Your task to perform on an android device: turn on improve location accuracy Image 0: 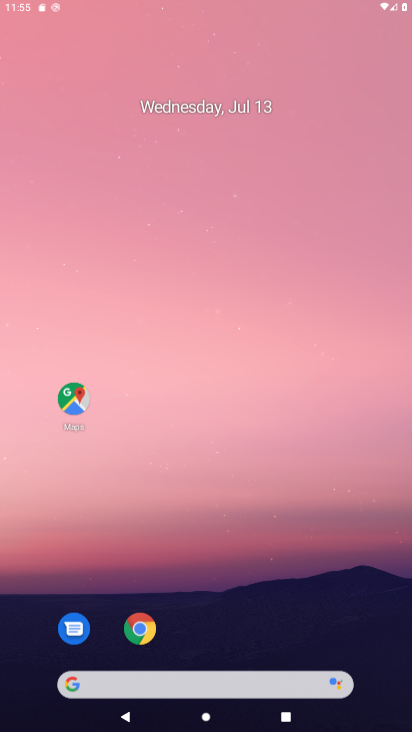
Step 0: press home button
Your task to perform on an android device: turn on improve location accuracy Image 1: 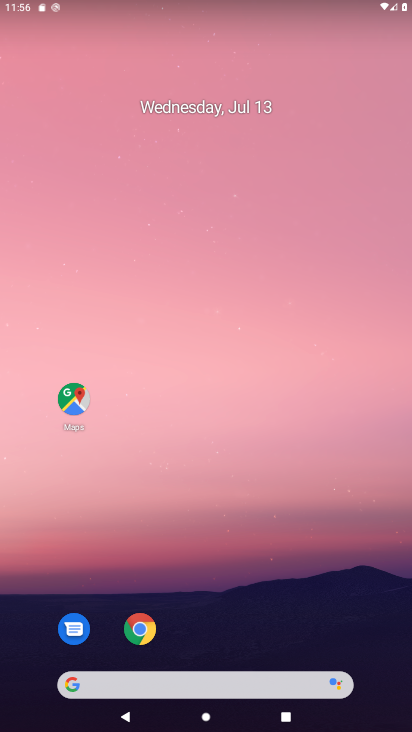
Step 1: drag from (276, 630) to (204, 99)
Your task to perform on an android device: turn on improve location accuracy Image 2: 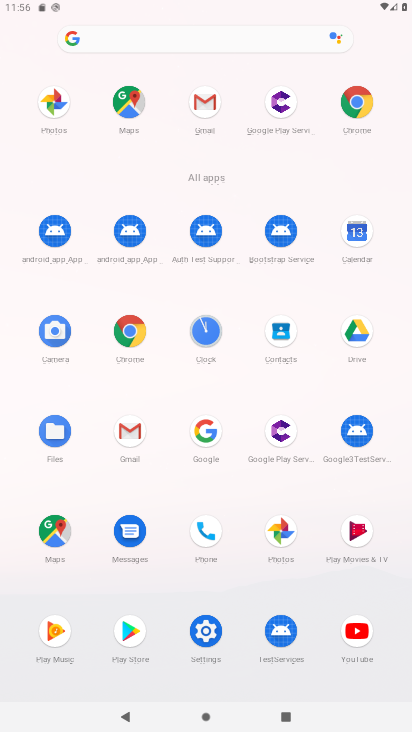
Step 2: click (209, 629)
Your task to perform on an android device: turn on improve location accuracy Image 3: 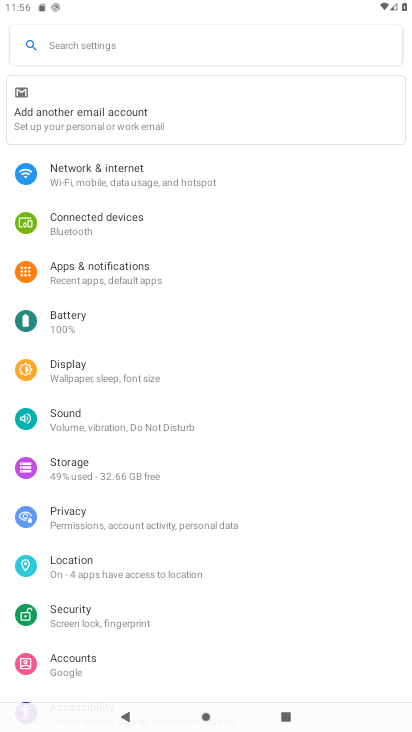
Step 3: click (209, 581)
Your task to perform on an android device: turn on improve location accuracy Image 4: 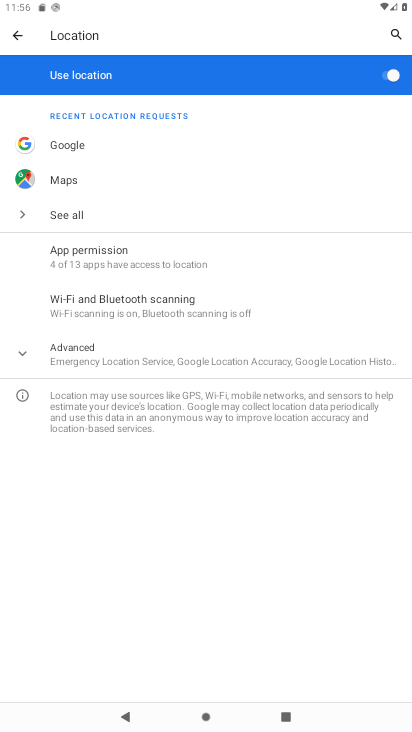
Step 4: click (130, 350)
Your task to perform on an android device: turn on improve location accuracy Image 5: 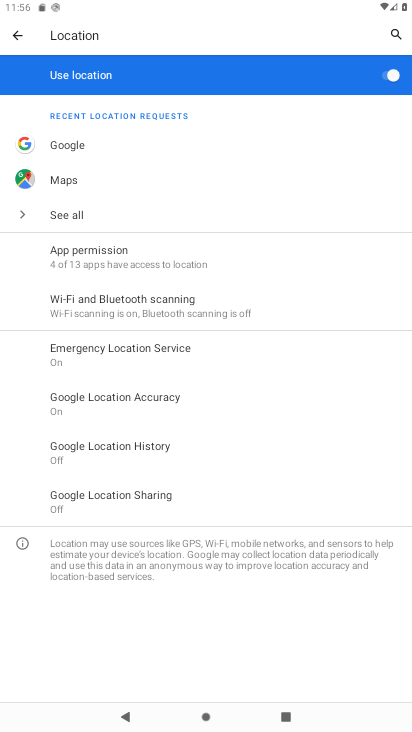
Step 5: click (140, 403)
Your task to perform on an android device: turn on improve location accuracy Image 6: 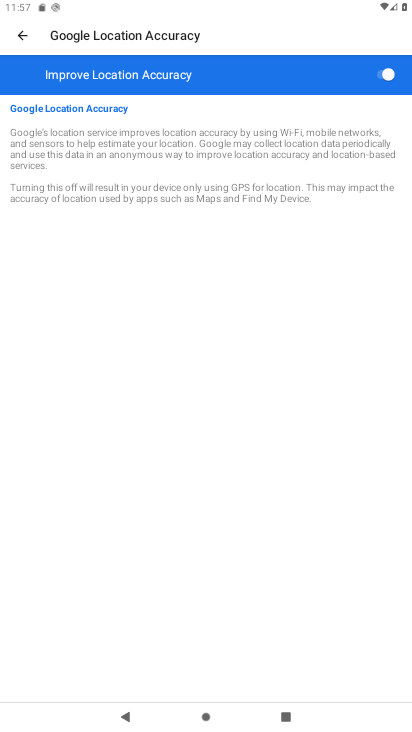
Step 6: task complete